Your task to perform on an android device: open a bookmark in the chrome app Image 0: 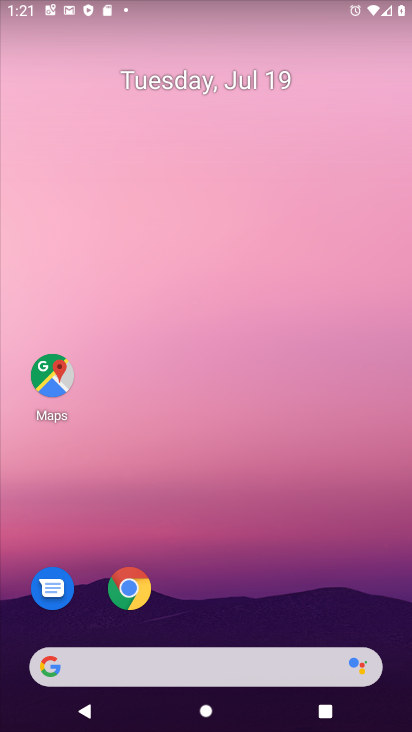
Step 0: drag from (323, 596) to (199, 148)
Your task to perform on an android device: open a bookmark in the chrome app Image 1: 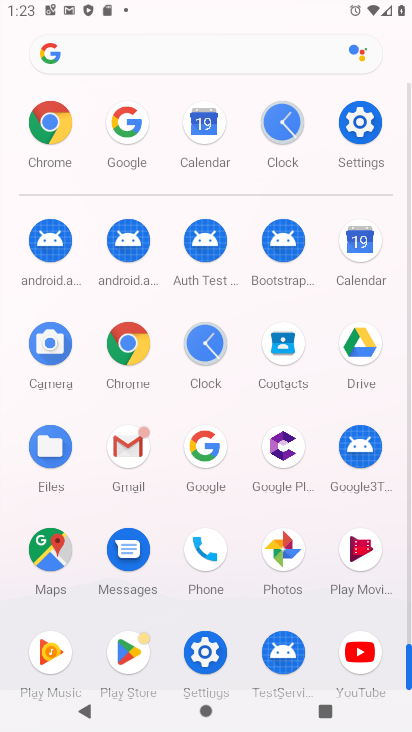
Step 1: click (142, 339)
Your task to perform on an android device: open a bookmark in the chrome app Image 2: 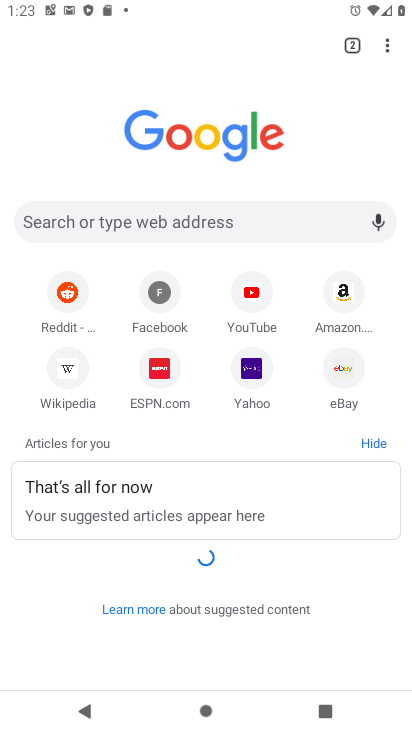
Step 2: click (386, 38)
Your task to perform on an android device: open a bookmark in the chrome app Image 3: 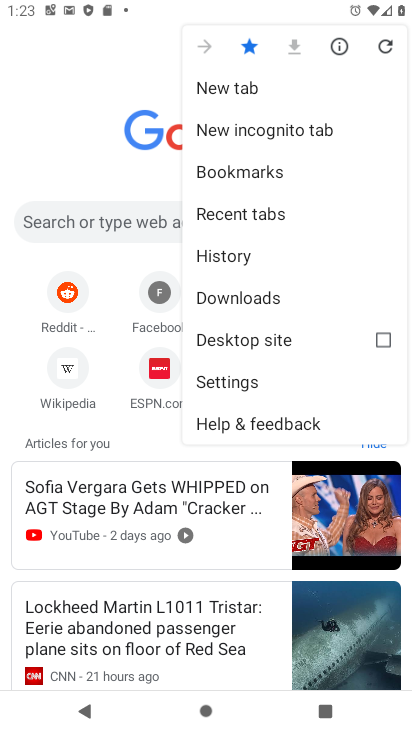
Step 3: click (274, 170)
Your task to perform on an android device: open a bookmark in the chrome app Image 4: 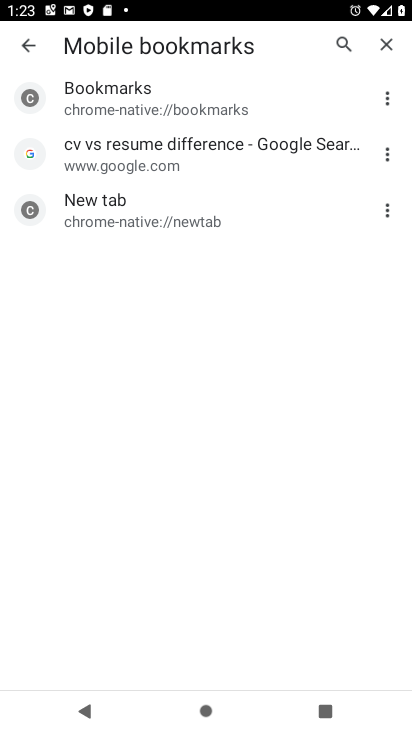
Step 4: task complete